Your task to perform on an android device: Open the stopwatch Image 0: 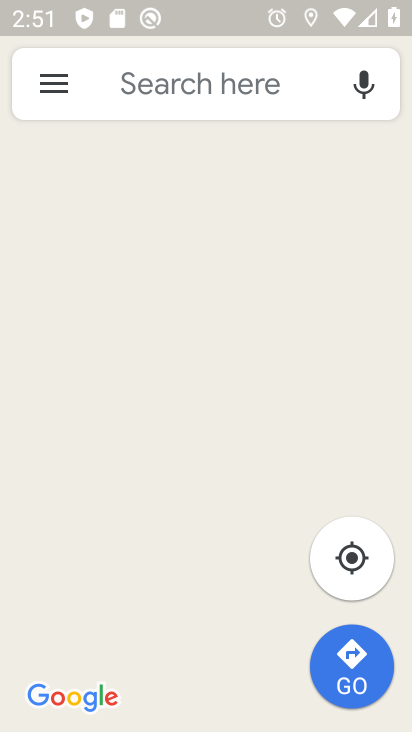
Step 0: press home button
Your task to perform on an android device: Open the stopwatch Image 1: 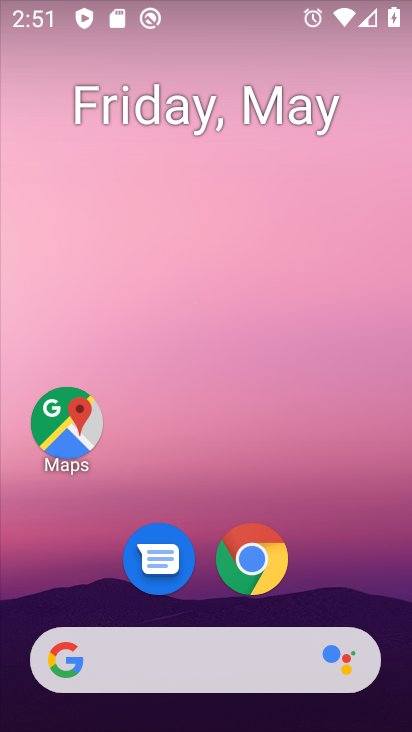
Step 1: drag from (324, 574) to (267, 131)
Your task to perform on an android device: Open the stopwatch Image 2: 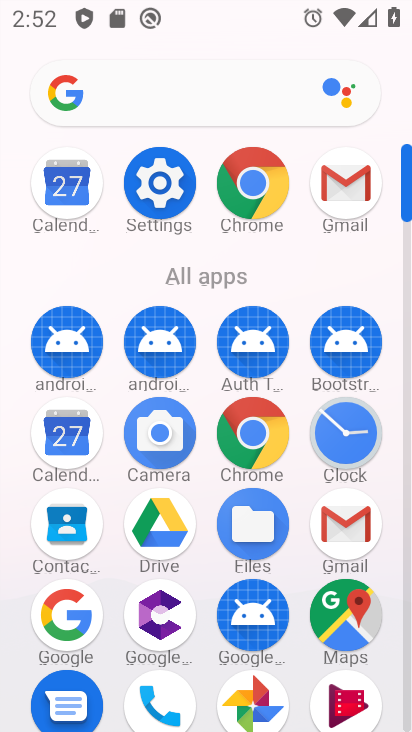
Step 2: click (146, 193)
Your task to perform on an android device: Open the stopwatch Image 3: 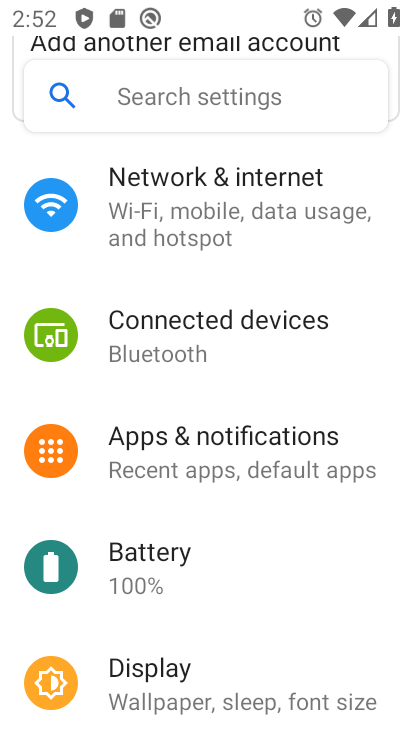
Step 3: press home button
Your task to perform on an android device: Open the stopwatch Image 4: 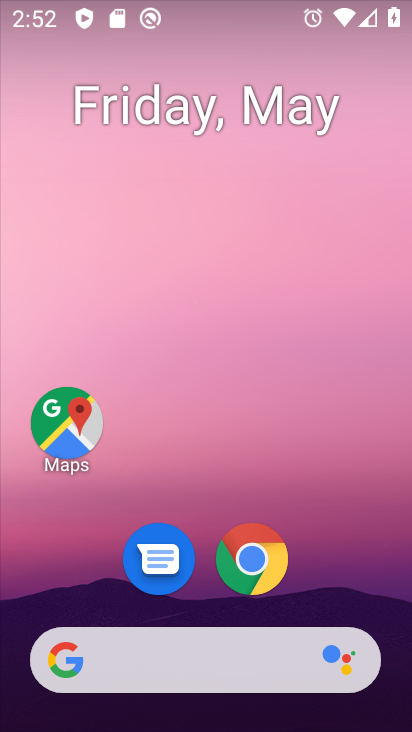
Step 4: drag from (350, 577) to (267, 135)
Your task to perform on an android device: Open the stopwatch Image 5: 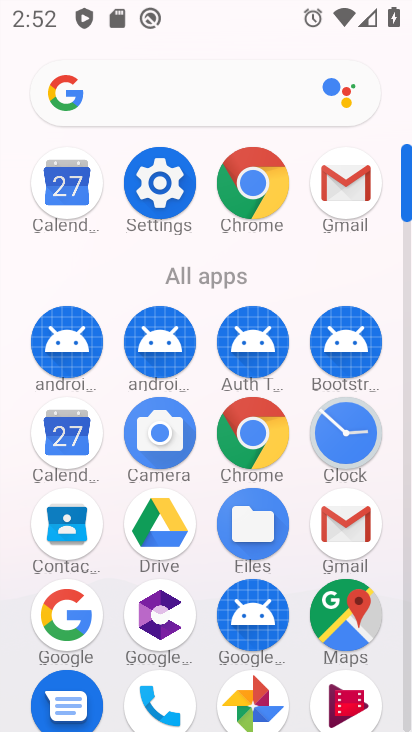
Step 5: click (319, 456)
Your task to perform on an android device: Open the stopwatch Image 6: 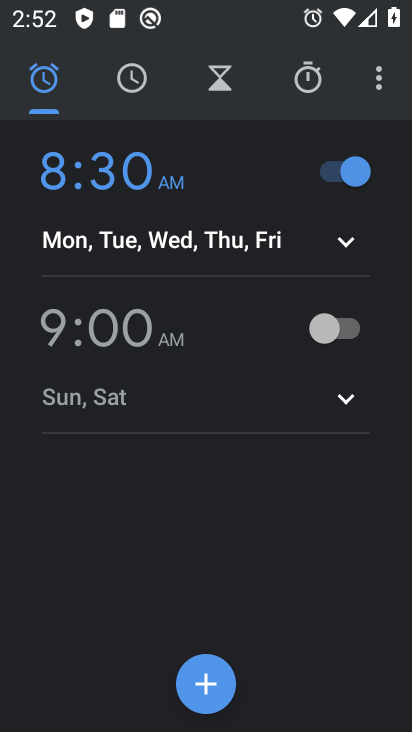
Step 6: click (318, 78)
Your task to perform on an android device: Open the stopwatch Image 7: 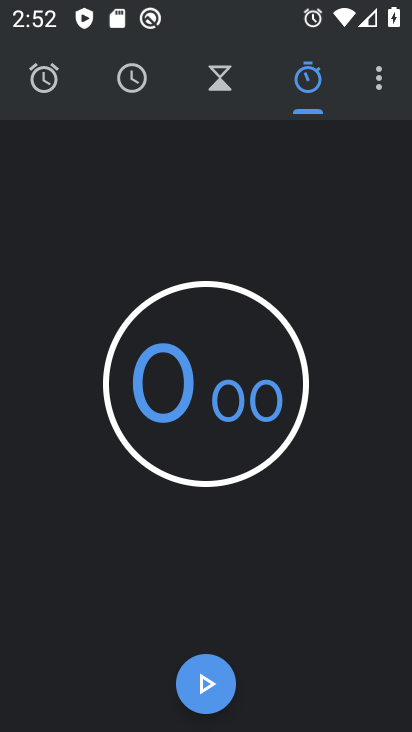
Step 7: task complete